Your task to perform on an android device: Open the map Image 0: 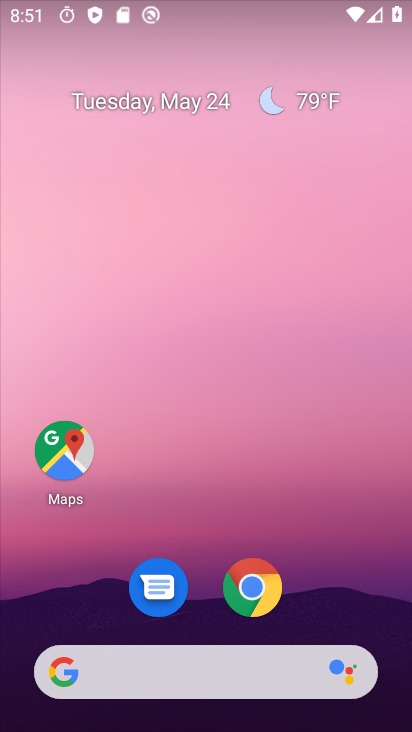
Step 0: click (59, 456)
Your task to perform on an android device: Open the map Image 1: 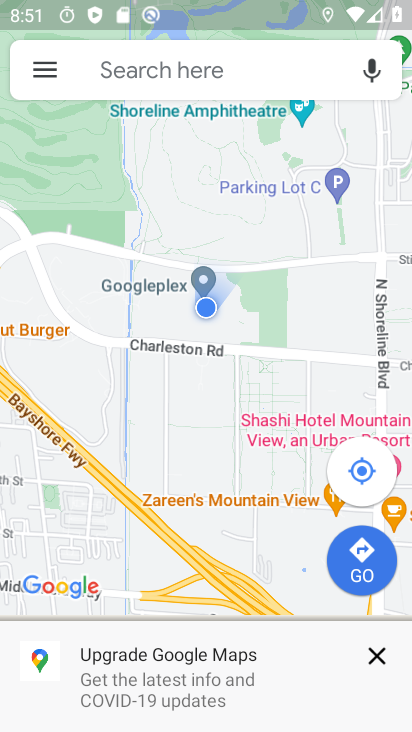
Step 1: task complete